Your task to perform on an android device: uninstall "Roku - Official Remote Control" Image 0: 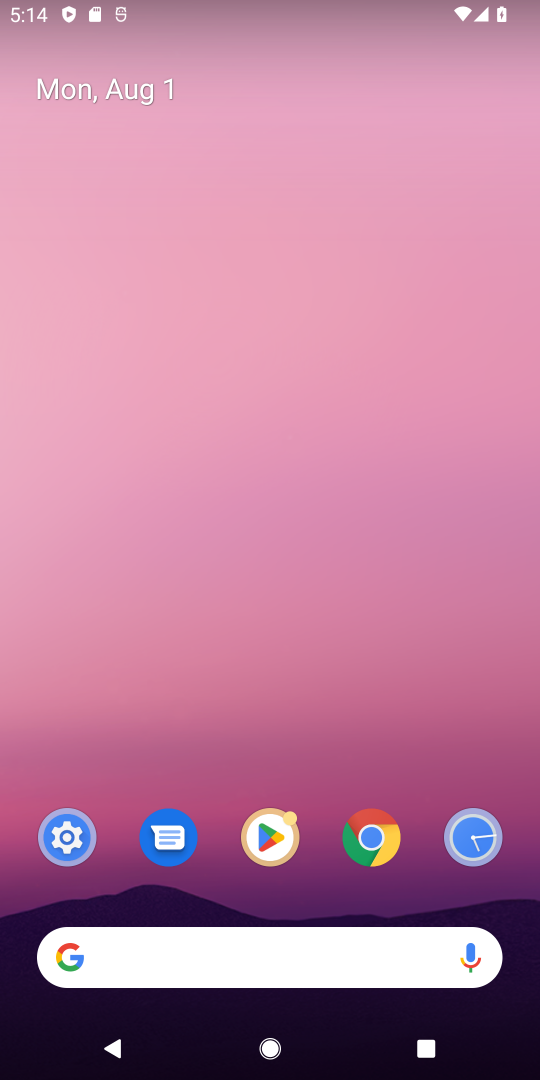
Step 0: click (238, 865)
Your task to perform on an android device: uninstall "Roku - Official Remote Control" Image 1: 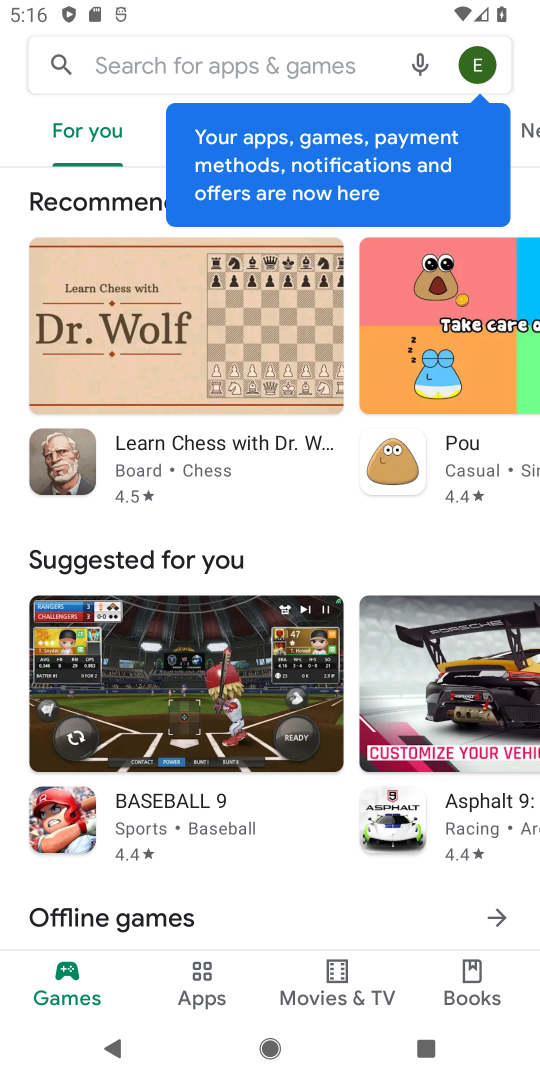
Step 1: click (156, 74)
Your task to perform on an android device: uninstall "Roku - Official Remote Control" Image 2: 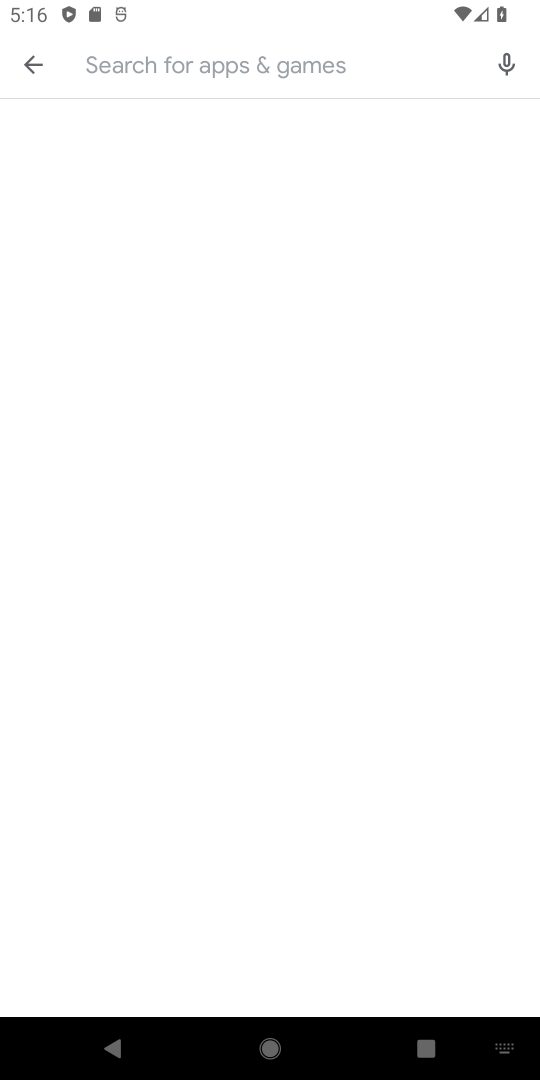
Step 2: type "roku "
Your task to perform on an android device: uninstall "Roku - Official Remote Control" Image 3: 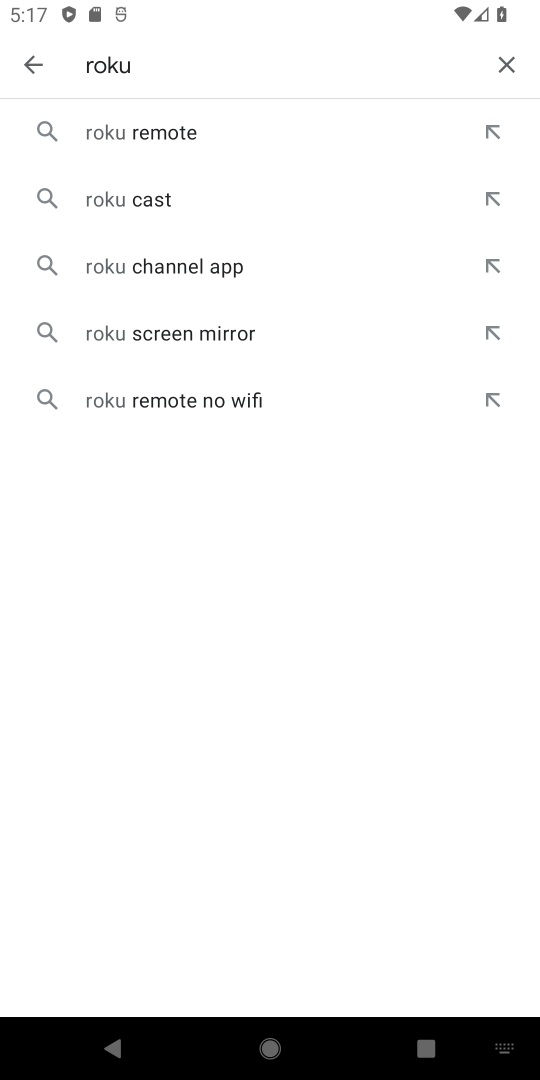
Step 3: type "official"
Your task to perform on an android device: uninstall "Roku - Official Remote Control" Image 4: 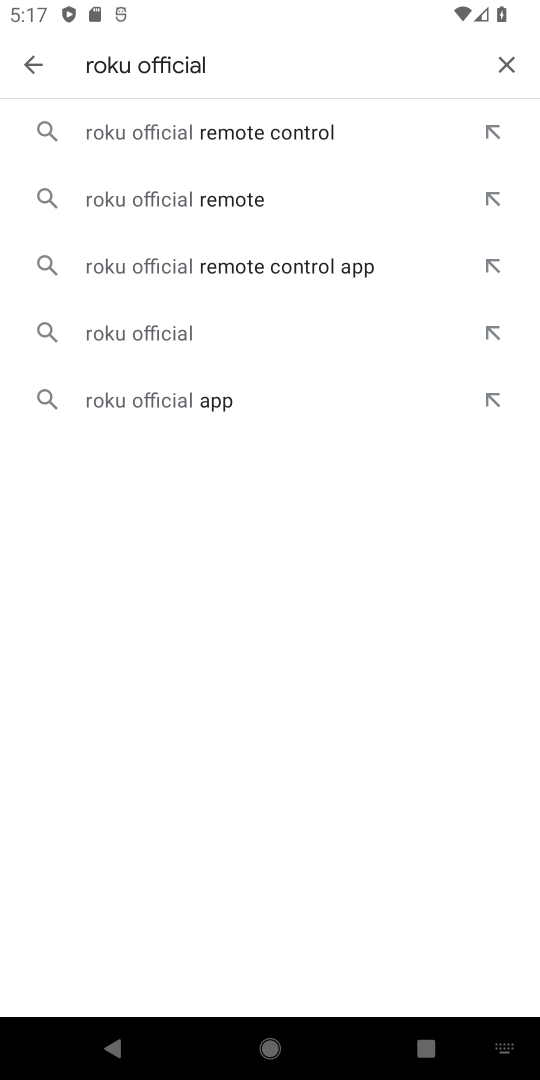
Step 4: click (188, 131)
Your task to perform on an android device: uninstall "Roku - Official Remote Control" Image 5: 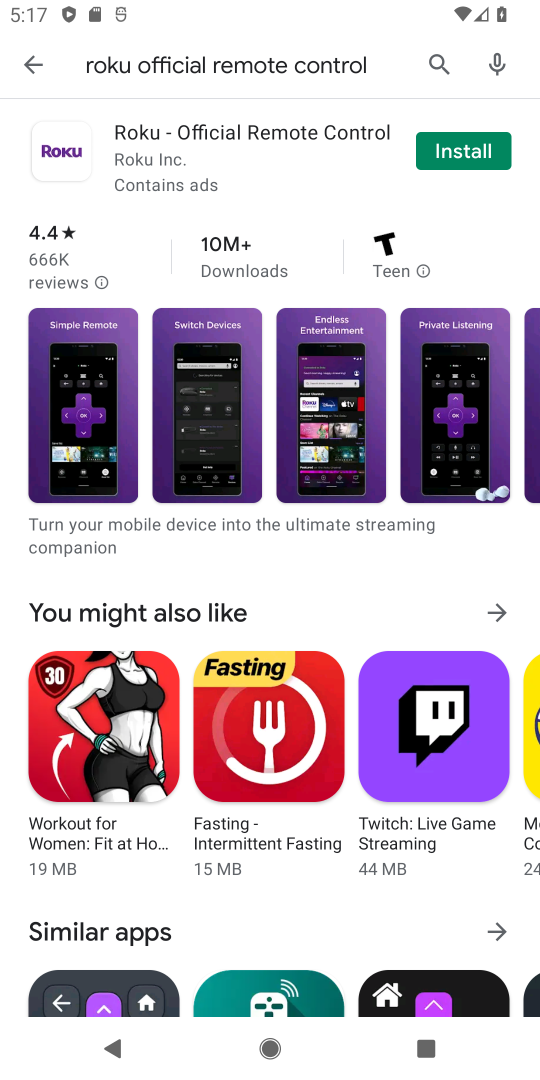
Step 5: task complete